Your task to perform on an android device: clear history in the chrome app Image 0: 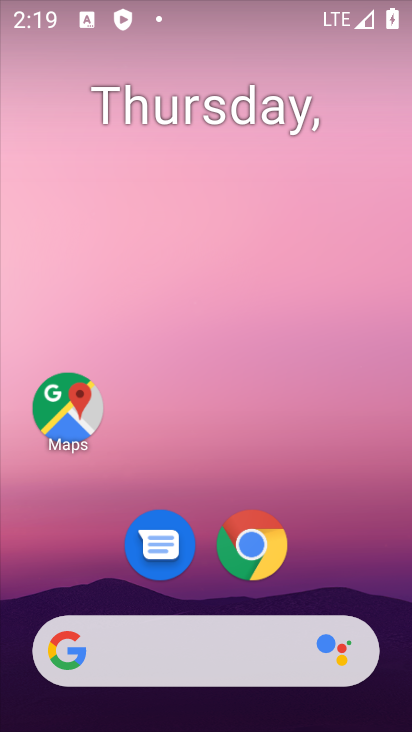
Step 0: drag from (257, 609) to (290, 85)
Your task to perform on an android device: clear history in the chrome app Image 1: 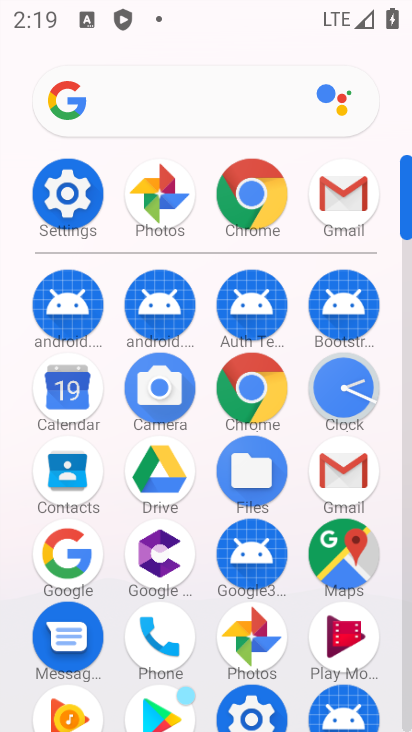
Step 1: click (259, 401)
Your task to perform on an android device: clear history in the chrome app Image 2: 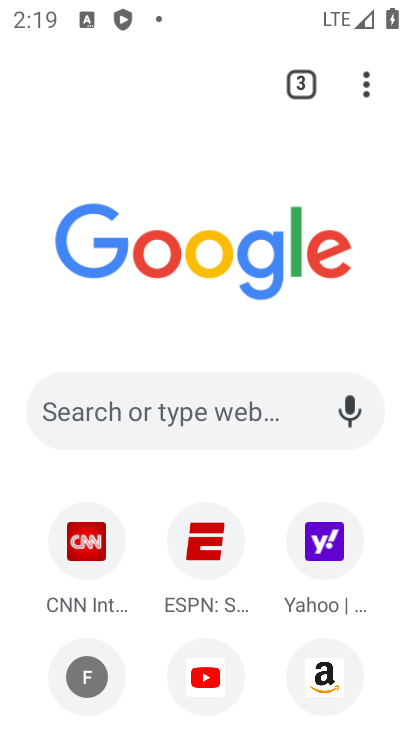
Step 2: click (362, 72)
Your task to perform on an android device: clear history in the chrome app Image 3: 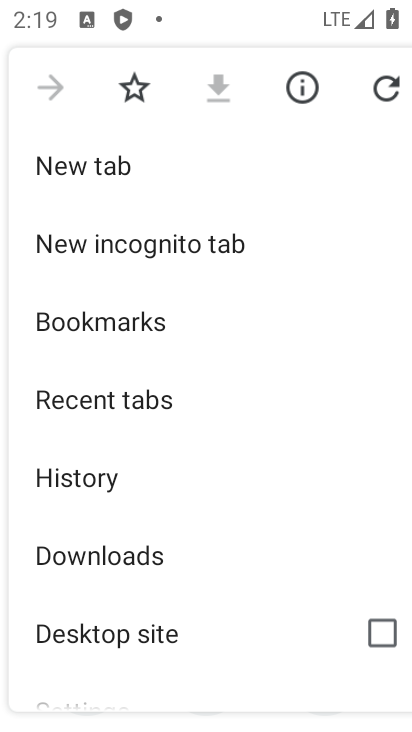
Step 3: drag from (192, 626) to (244, 155)
Your task to perform on an android device: clear history in the chrome app Image 4: 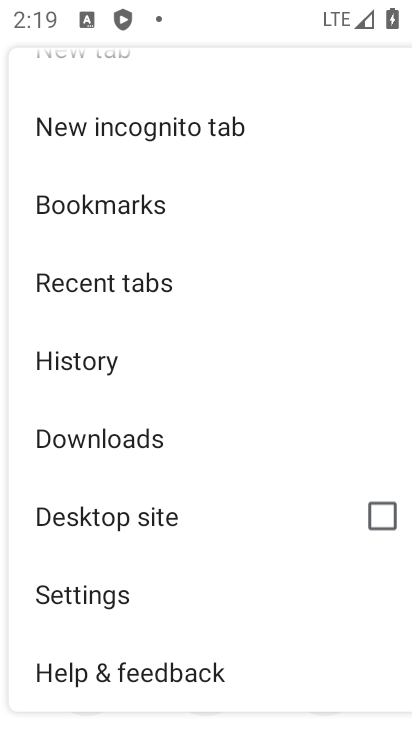
Step 4: click (128, 593)
Your task to perform on an android device: clear history in the chrome app Image 5: 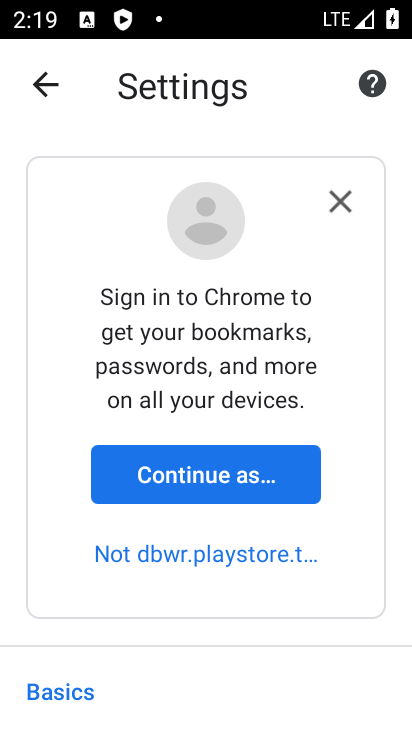
Step 5: press back button
Your task to perform on an android device: clear history in the chrome app Image 6: 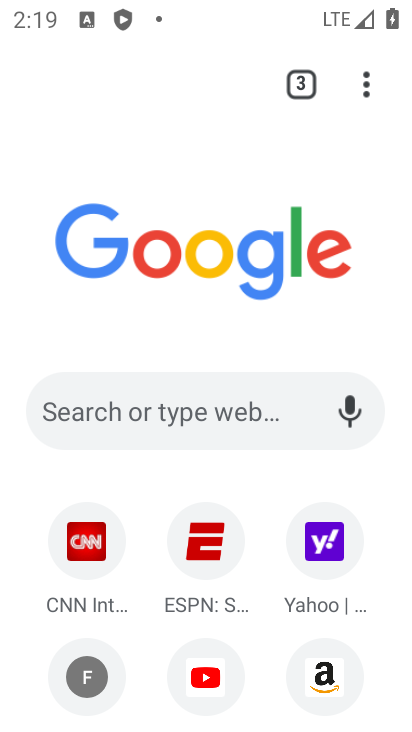
Step 6: click (365, 97)
Your task to perform on an android device: clear history in the chrome app Image 7: 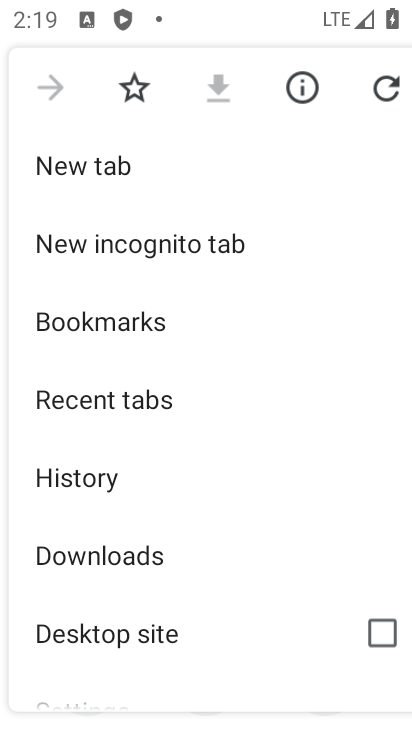
Step 7: drag from (199, 642) to (267, 130)
Your task to perform on an android device: clear history in the chrome app Image 8: 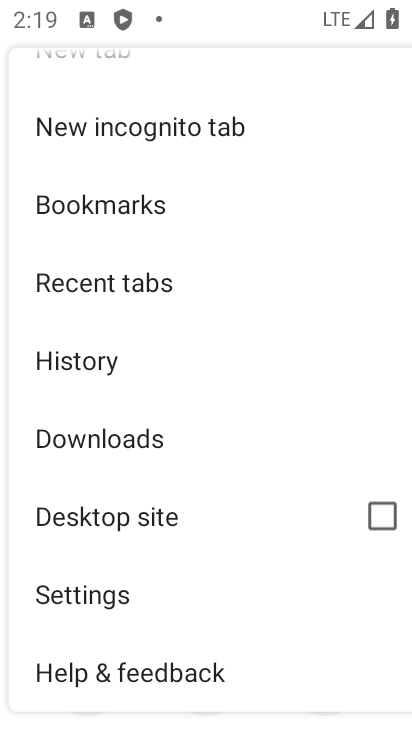
Step 8: click (167, 595)
Your task to perform on an android device: clear history in the chrome app Image 9: 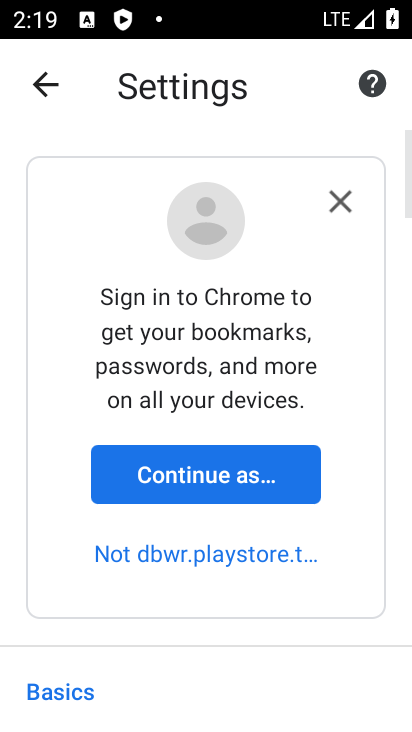
Step 9: drag from (180, 639) to (241, 101)
Your task to perform on an android device: clear history in the chrome app Image 10: 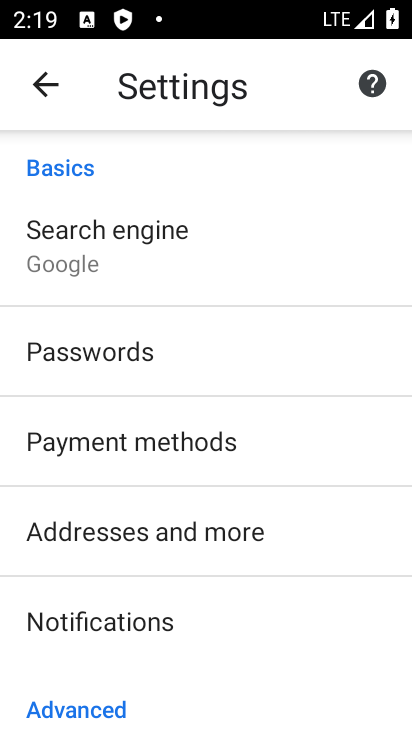
Step 10: drag from (186, 682) to (235, 201)
Your task to perform on an android device: clear history in the chrome app Image 11: 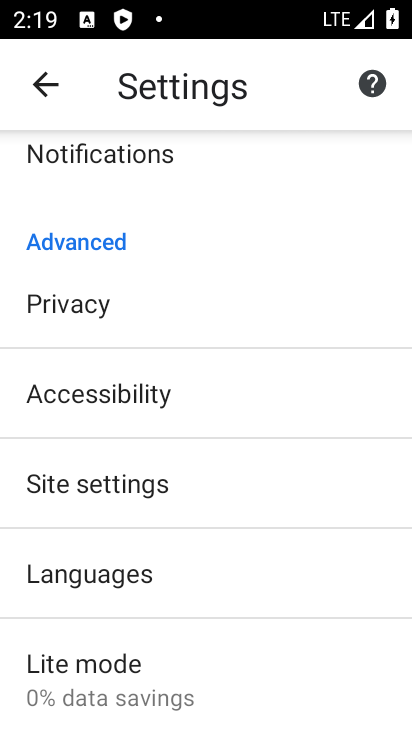
Step 11: click (139, 320)
Your task to perform on an android device: clear history in the chrome app Image 12: 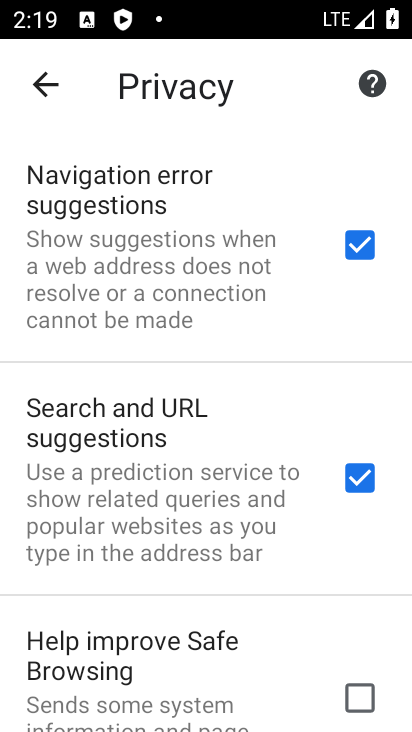
Step 12: drag from (272, 614) to (304, 236)
Your task to perform on an android device: clear history in the chrome app Image 13: 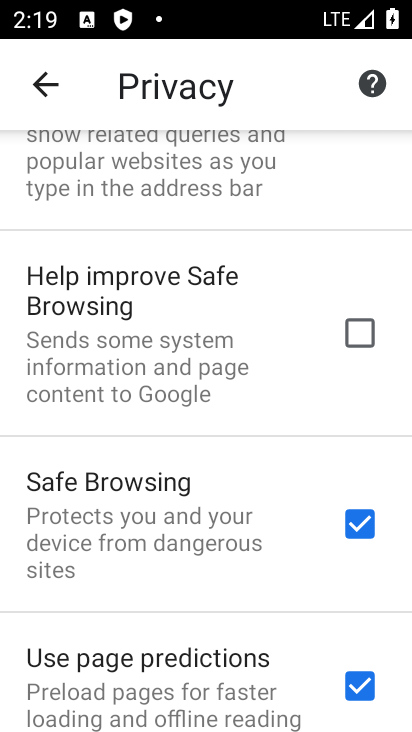
Step 13: drag from (217, 674) to (265, 190)
Your task to perform on an android device: clear history in the chrome app Image 14: 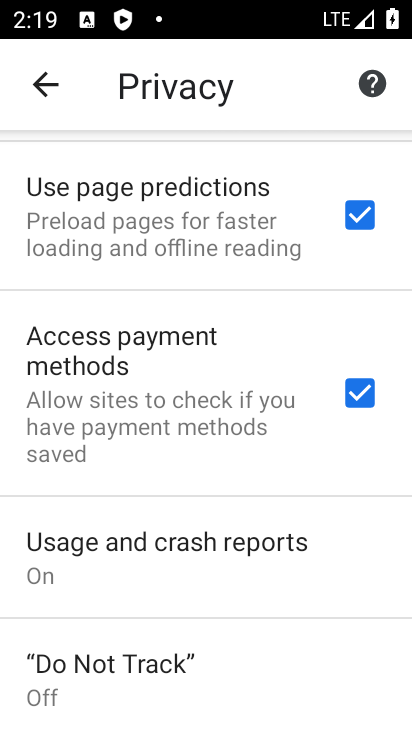
Step 14: drag from (189, 657) to (225, 213)
Your task to perform on an android device: clear history in the chrome app Image 15: 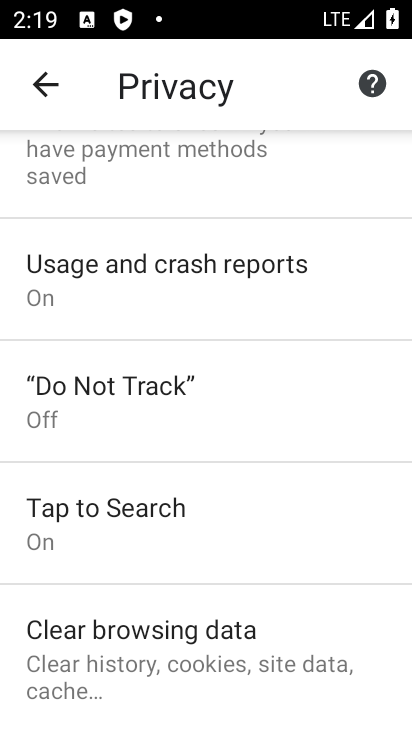
Step 15: click (140, 679)
Your task to perform on an android device: clear history in the chrome app Image 16: 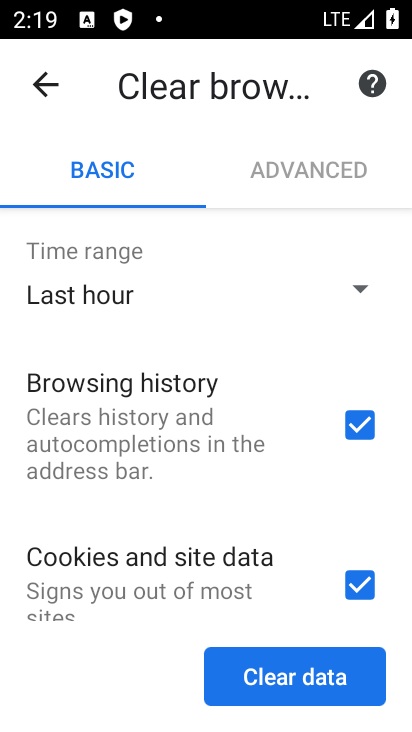
Step 16: click (329, 657)
Your task to perform on an android device: clear history in the chrome app Image 17: 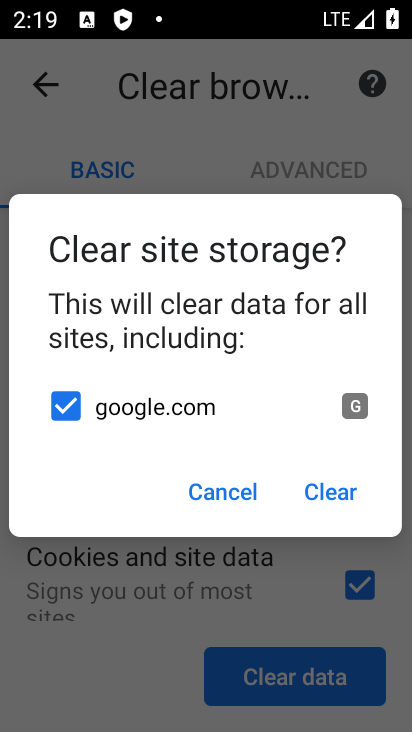
Step 17: click (336, 486)
Your task to perform on an android device: clear history in the chrome app Image 18: 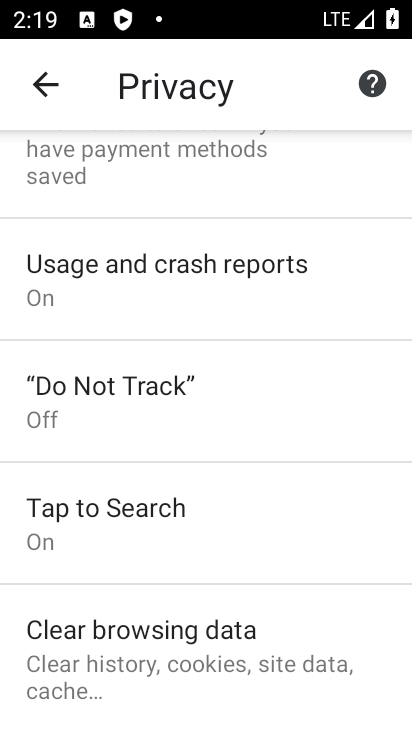
Step 18: task complete